Your task to perform on an android device: turn on sleep mode Image 0: 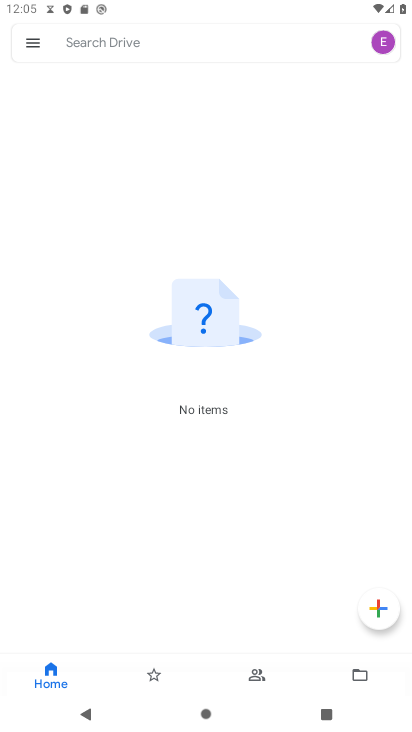
Step 0: press home button
Your task to perform on an android device: turn on sleep mode Image 1: 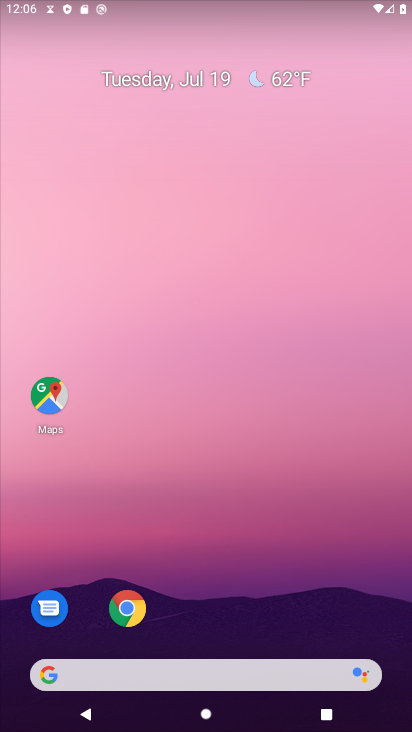
Step 1: drag from (230, 616) to (191, 38)
Your task to perform on an android device: turn on sleep mode Image 2: 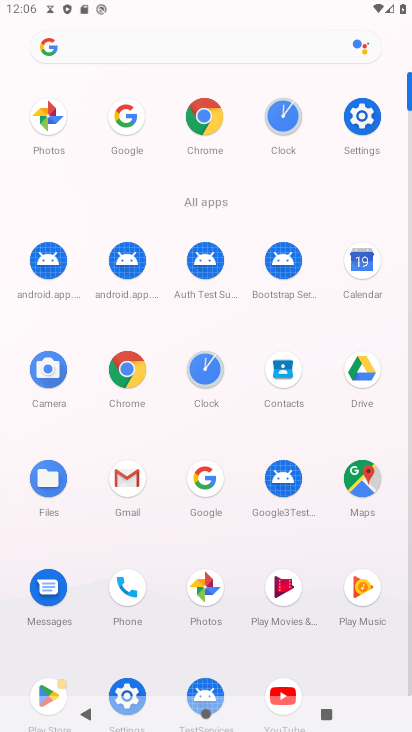
Step 2: click (367, 130)
Your task to perform on an android device: turn on sleep mode Image 3: 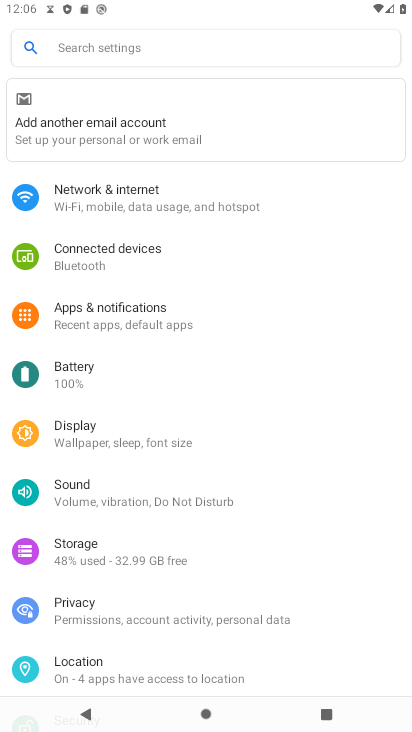
Step 3: click (198, 433)
Your task to perform on an android device: turn on sleep mode Image 4: 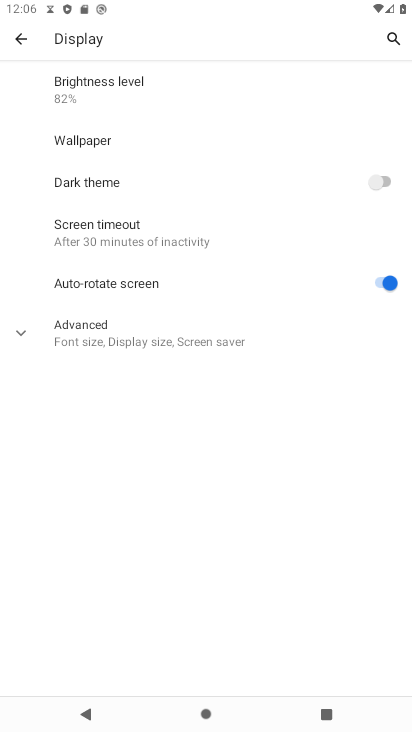
Step 4: task complete